Your task to perform on an android device: Set the phone to "Do not disturb". Image 0: 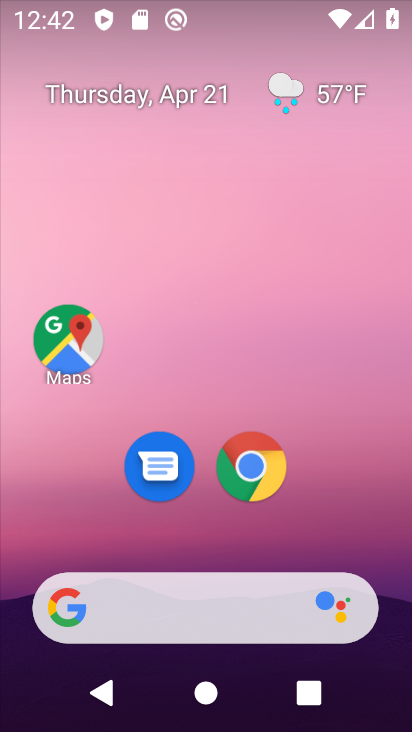
Step 0: drag from (385, 476) to (353, 123)
Your task to perform on an android device: Set the phone to "Do not disturb". Image 1: 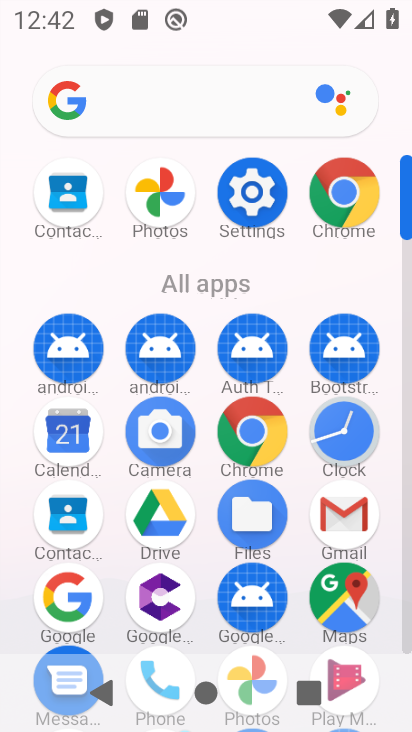
Step 1: click (277, 190)
Your task to perform on an android device: Set the phone to "Do not disturb". Image 2: 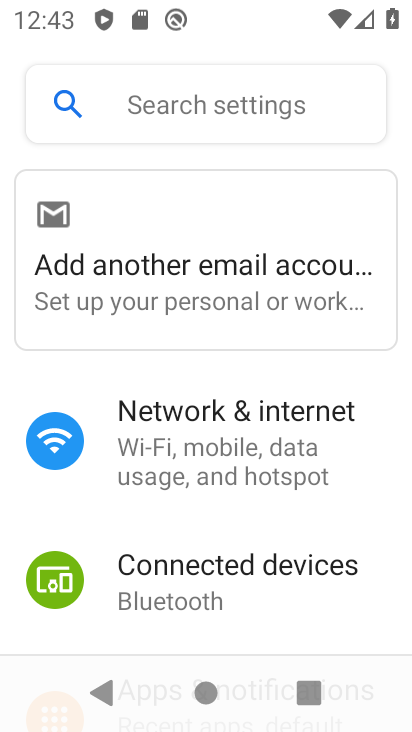
Step 2: drag from (216, 569) to (289, 207)
Your task to perform on an android device: Set the phone to "Do not disturb". Image 3: 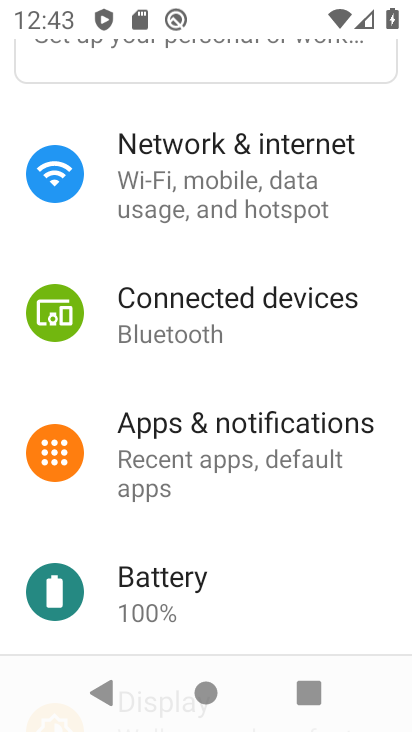
Step 3: drag from (291, 495) to (334, 178)
Your task to perform on an android device: Set the phone to "Do not disturb". Image 4: 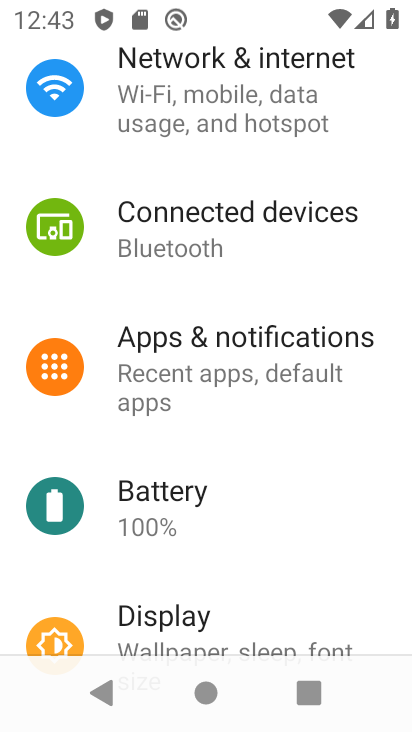
Step 4: drag from (251, 530) to (314, 162)
Your task to perform on an android device: Set the phone to "Do not disturb". Image 5: 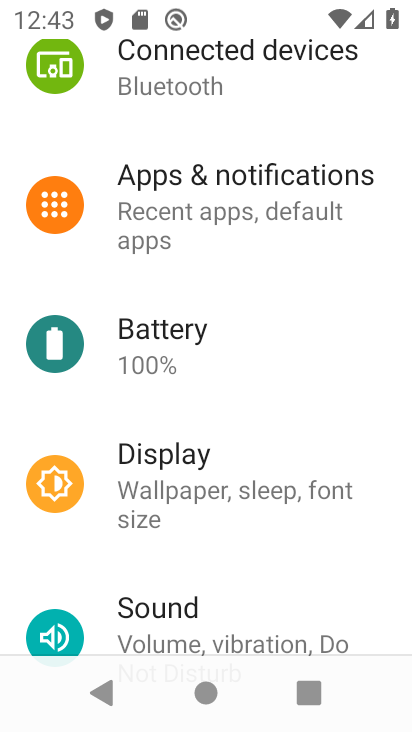
Step 5: drag from (202, 568) to (282, 222)
Your task to perform on an android device: Set the phone to "Do not disturb". Image 6: 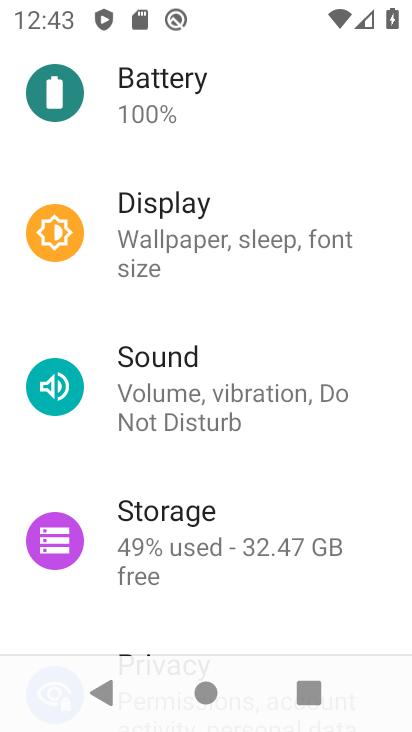
Step 6: click (172, 394)
Your task to perform on an android device: Set the phone to "Do not disturb". Image 7: 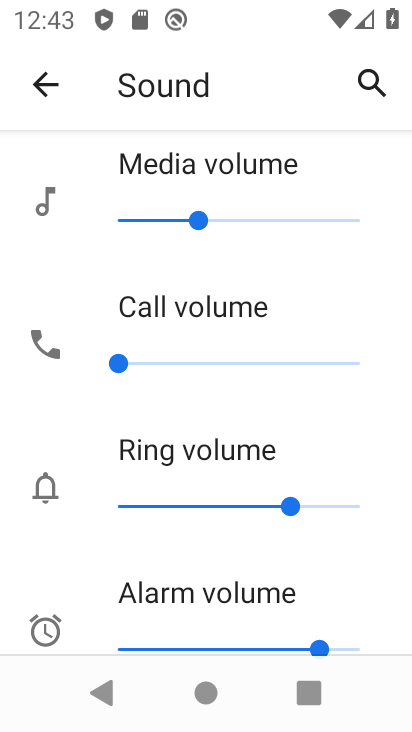
Step 7: drag from (207, 531) to (313, 155)
Your task to perform on an android device: Set the phone to "Do not disturb". Image 8: 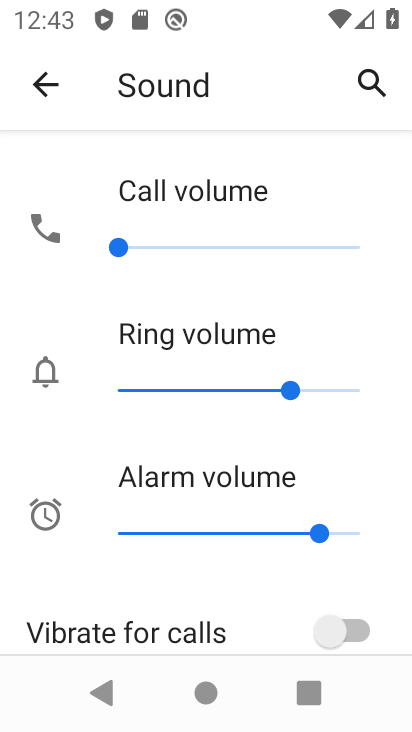
Step 8: drag from (218, 552) to (329, 69)
Your task to perform on an android device: Set the phone to "Do not disturb". Image 9: 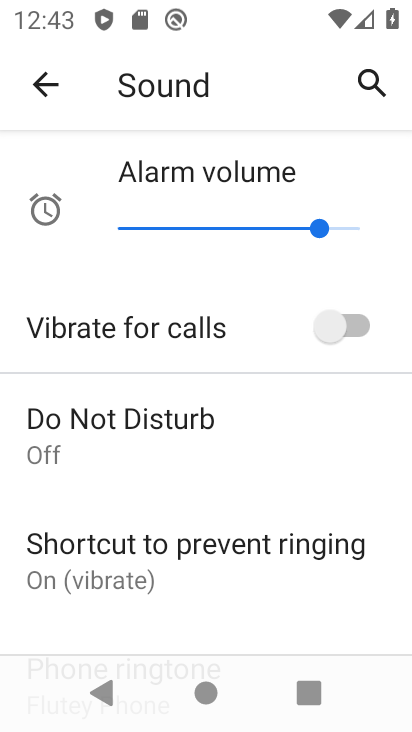
Step 9: click (97, 418)
Your task to perform on an android device: Set the phone to "Do not disturb". Image 10: 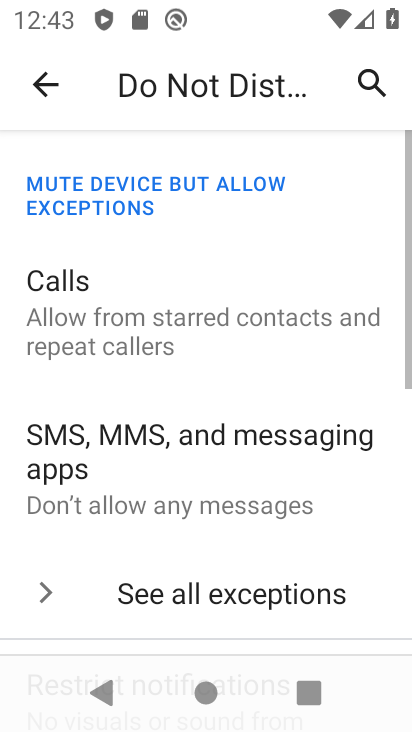
Step 10: drag from (140, 542) to (235, 194)
Your task to perform on an android device: Set the phone to "Do not disturb". Image 11: 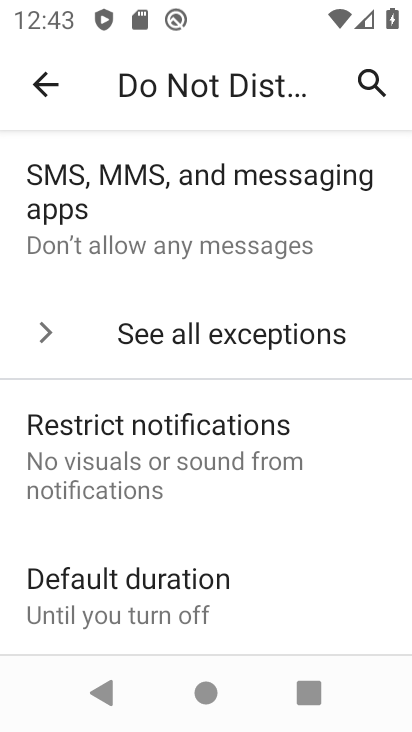
Step 11: drag from (191, 534) to (264, 168)
Your task to perform on an android device: Set the phone to "Do not disturb". Image 12: 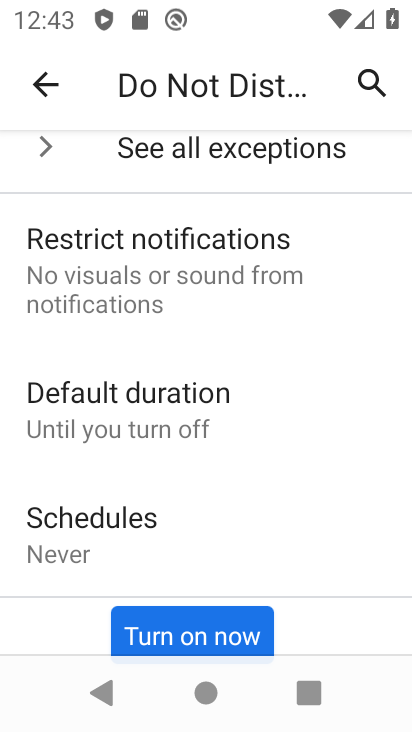
Step 12: drag from (224, 566) to (318, 178)
Your task to perform on an android device: Set the phone to "Do not disturb". Image 13: 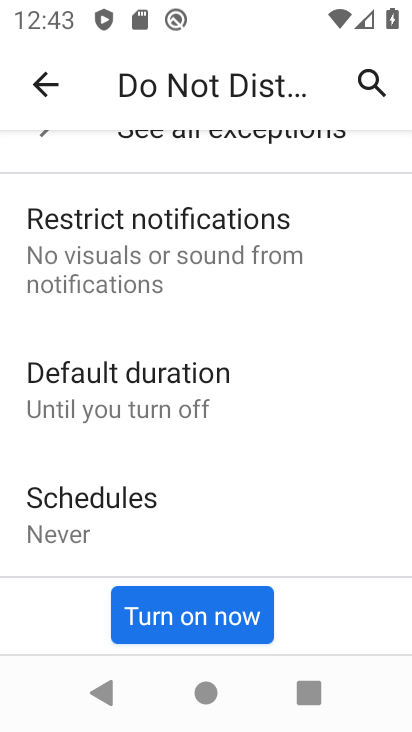
Step 13: click (206, 635)
Your task to perform on an android device: Set the phone to "Do not disturb". Image 14: 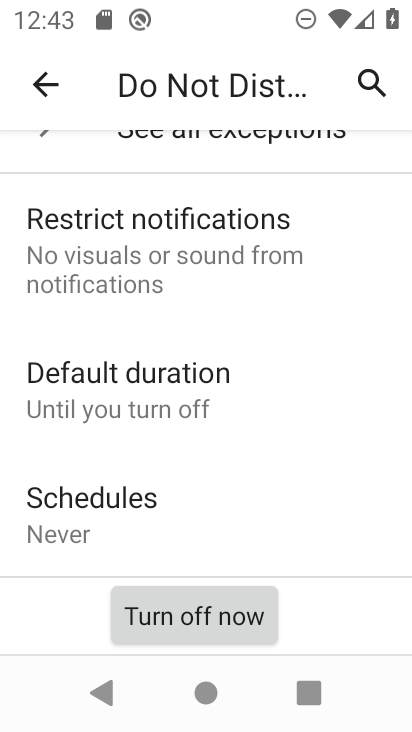
Step 14: task complete